Your task to perform on an android device: Go to Maps Image 0: 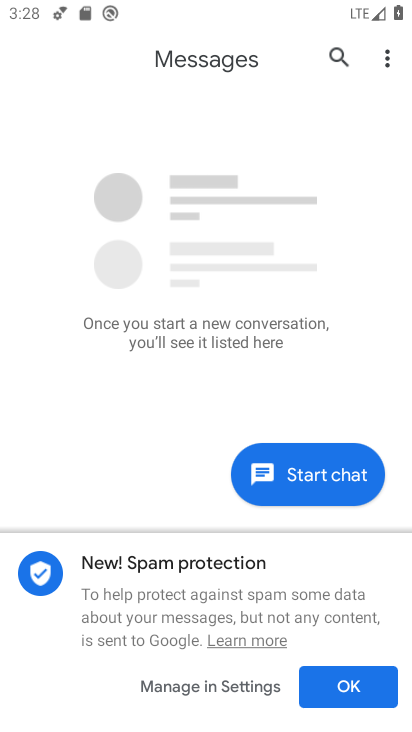
Step 0: press home button
Your task to perform on an android device: Go to Maps Image 1: 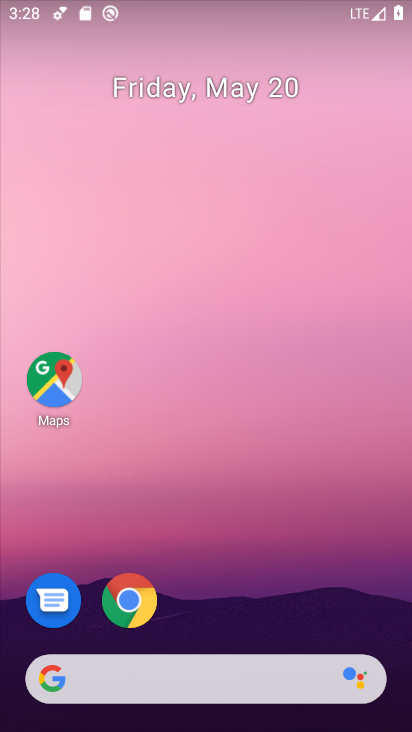
Step 1: drag from (356, 601) to (351, 223)
Your task to perform on an android device: Go to Maps Image 2: 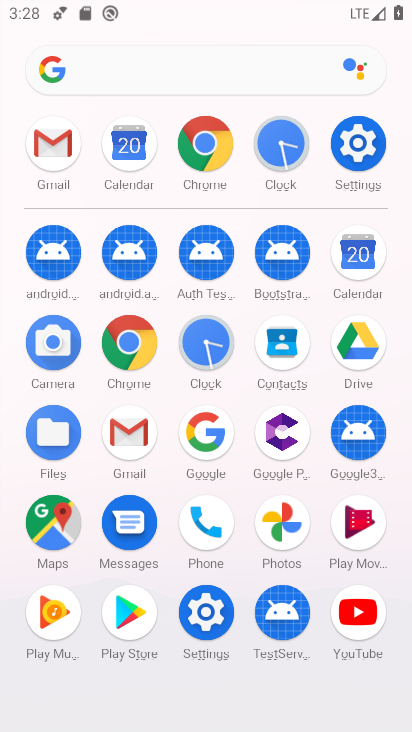
Step 2: click (53, 528)
Your task to perform on an android device: Go to Maps Image 3: 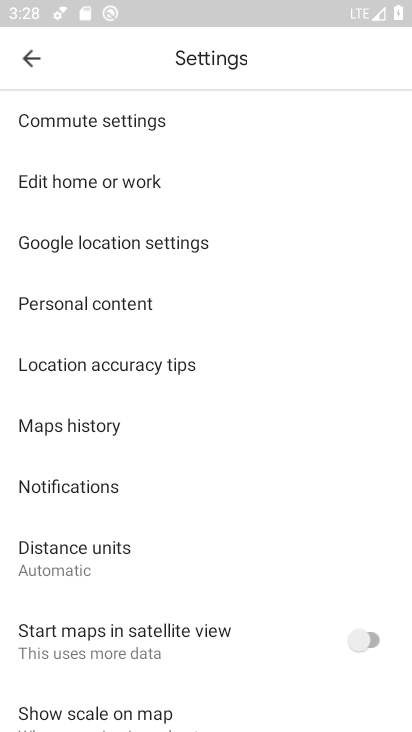
Step 3: click (36, 77)
Your task to perform on an android device: Go to Maps Image 4: 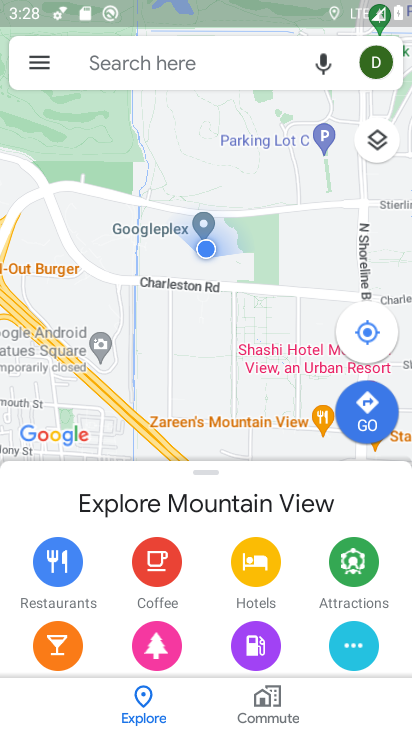
Step 4: task complete